Your task to perform on an android device: toggle show notifications on the lock screen Image 0: 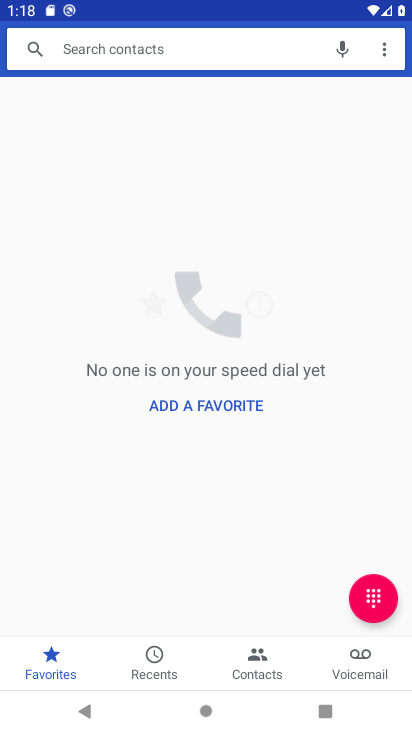
Step 0: press home button
Your task to perform on an android device: toggle show notifications on the lock screen Image 1: 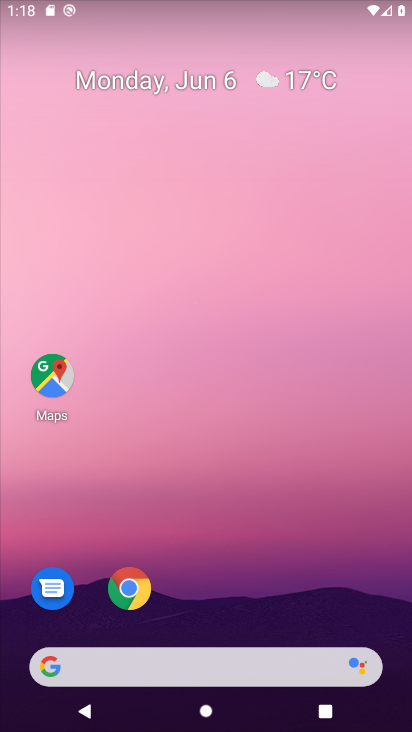
Step 1: drag from (241, 704) to (282, 12)
Your task to perform on an android device: toggle show notifications on the lock screen Image 2: 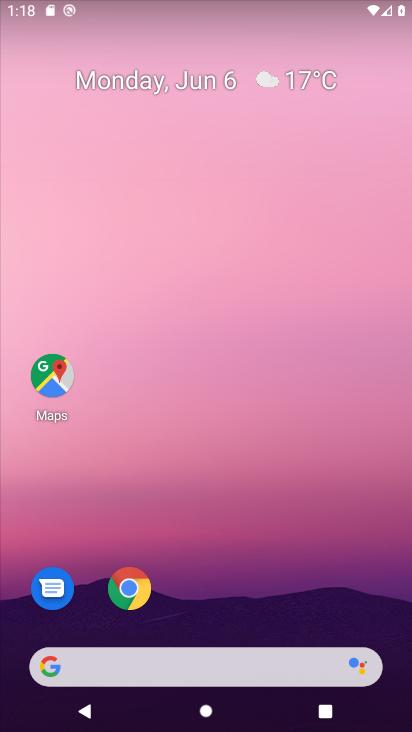
Step 2: drag from (247, 711) to (259, 7)
Your task to perform on an android device: toggle show notifications on the lock screen Image 3: 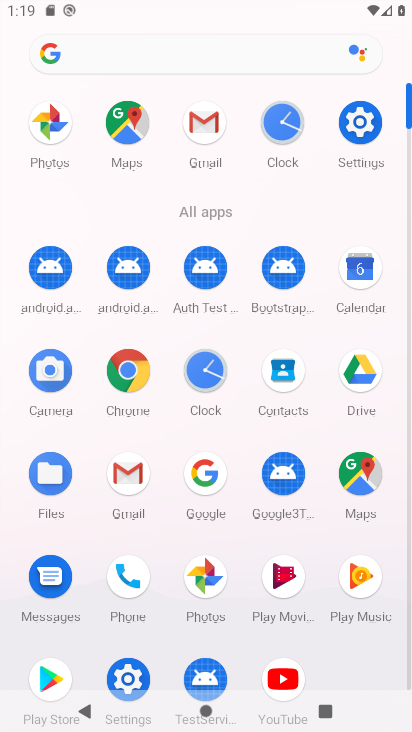
Step 3: click (346, 131)
Your task to perform on an android device: toggle show notifications on the lock screen Image 4: 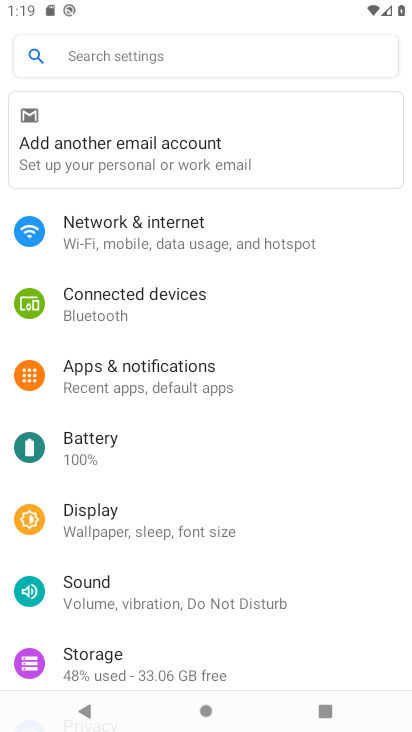
Step 4: click (216, 367)
Your task to perform on an android device: toggle show notifications on the lock screen Image 5: 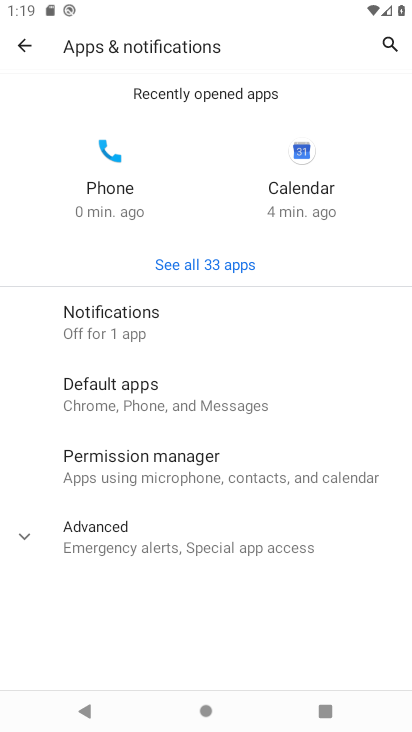
Step 5: click (239, 319)
Your task to perform on an android device: toggle show notifications on the lock screen Image 6: 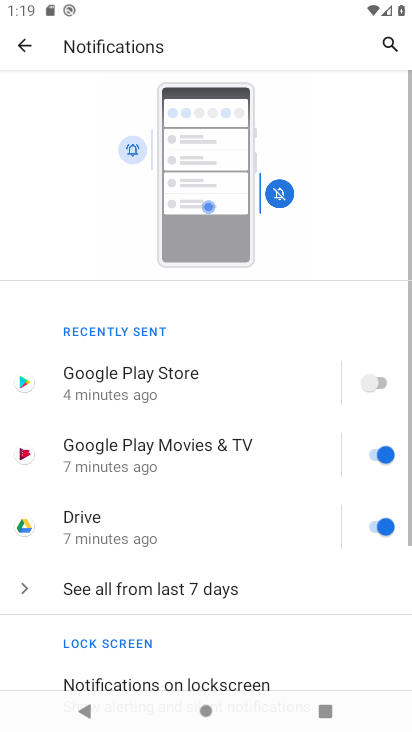
Step 6: drag from (286, 628) to (291, 94)
Your task to perform on an android device: toggle show notifications on the lock screen Image 7: 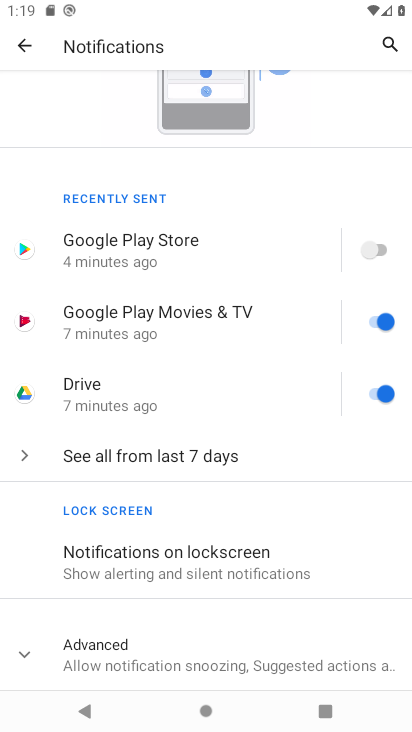
Step 7: click (248, 567)
Your task to perform on an android device: toggle show notifications on the lock screen Image 8: 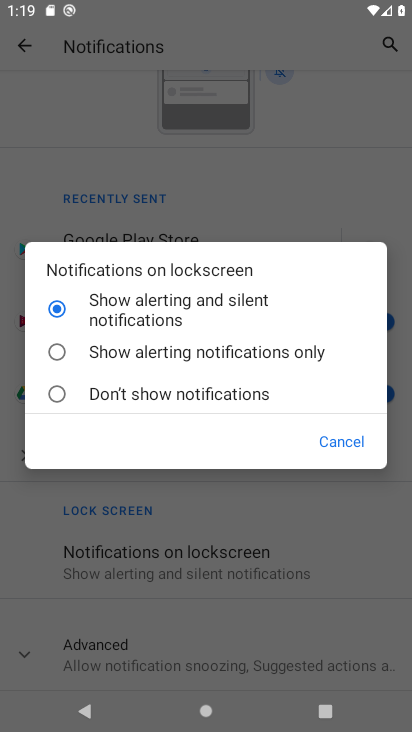
Step 8: click (184, 392)
Your task to perform on an android device: toggle show notifications on the lock screen Image 9: 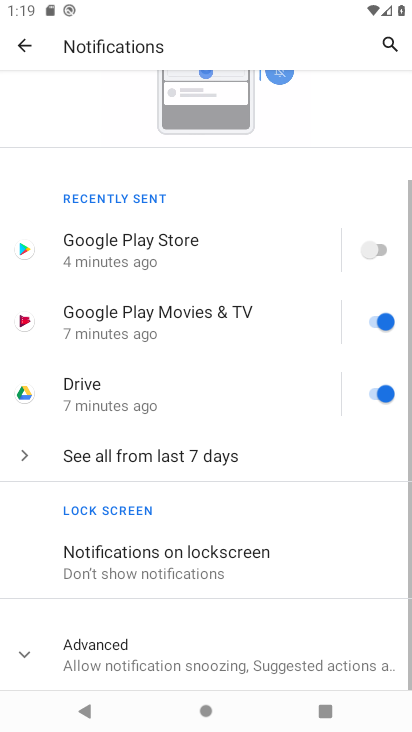
Step 9: task complete